Your task to perform on an android device: Go to Reddit.com Image 0: 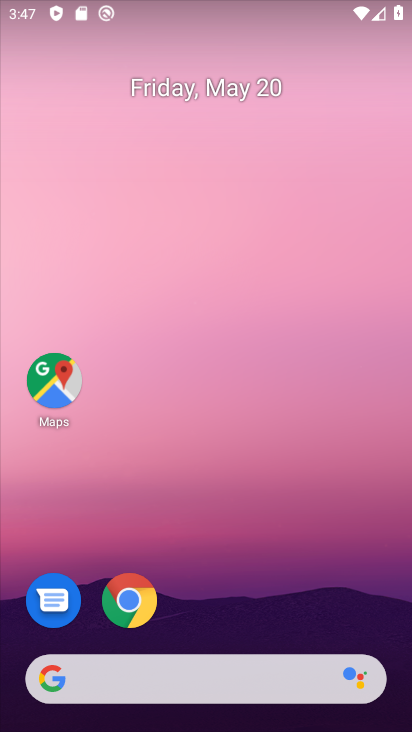
Step 0: click (136, 601)
Your task to perform on an android device: Go to Reddit.com Image 1: 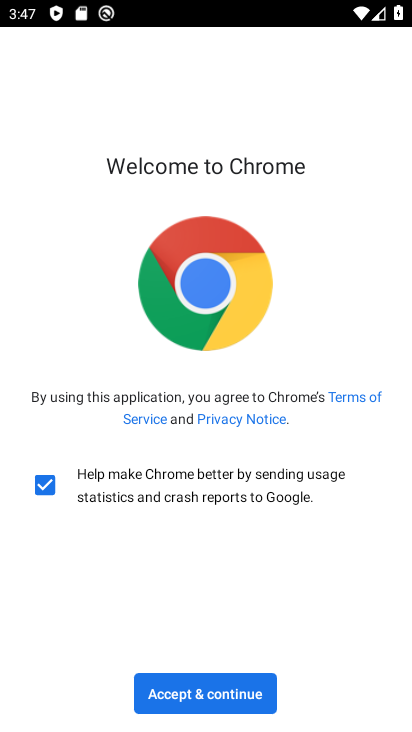
Step 1: click (184, 681)
Your task to perform on an android device: Go to Reddit.com Image 2: 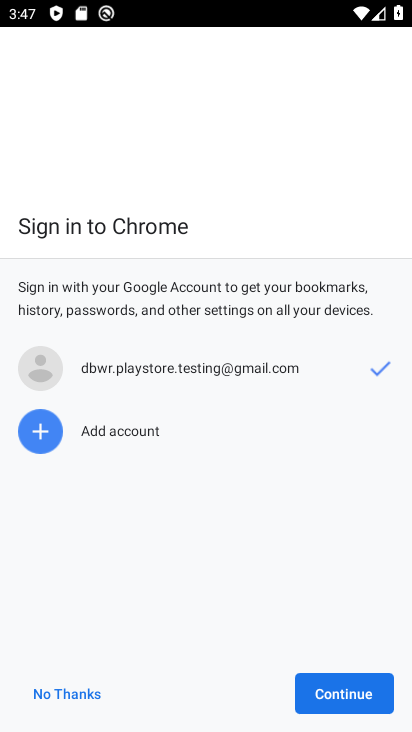
Step 2: click (348, 694)
Your task to perform on an android device: Go to Reddit.com Image 3: 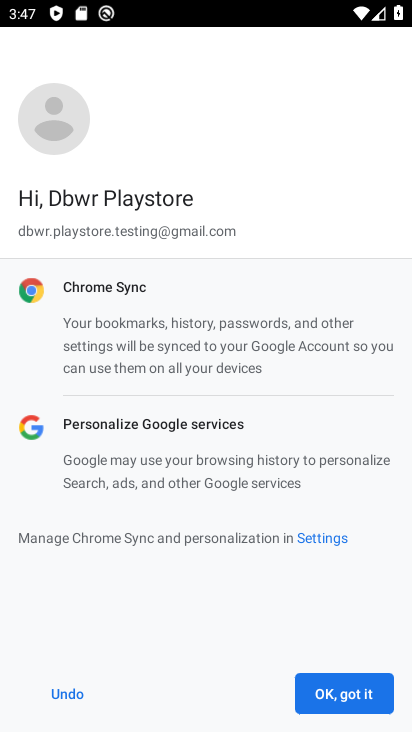
Step 3: click (348, 694)
Your task to perform on an android device: Go to Reddit.com Image 4: 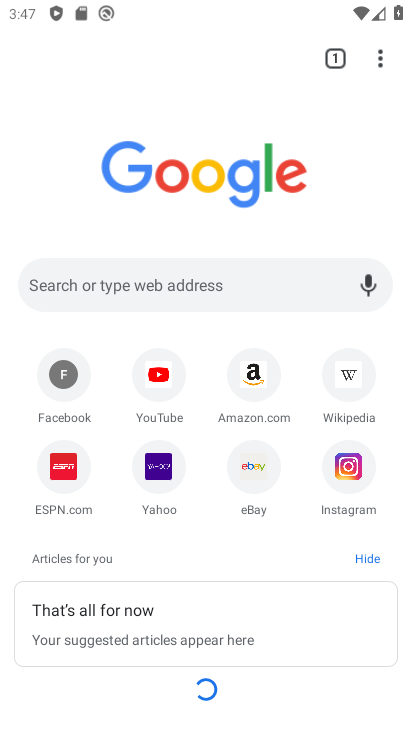
Step 4: click (336, 52)
Your task to perform on an android device: Go to Reddit.com Image 5: 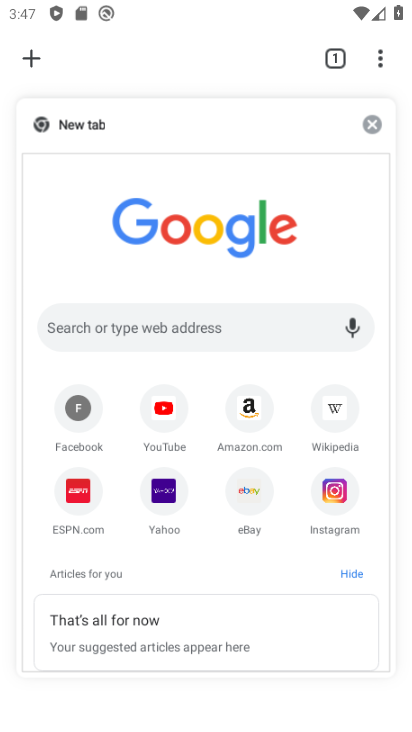
Step 5: click (158, 145)
Your task to perform on an android device: Go to Reddit.com Image 6: 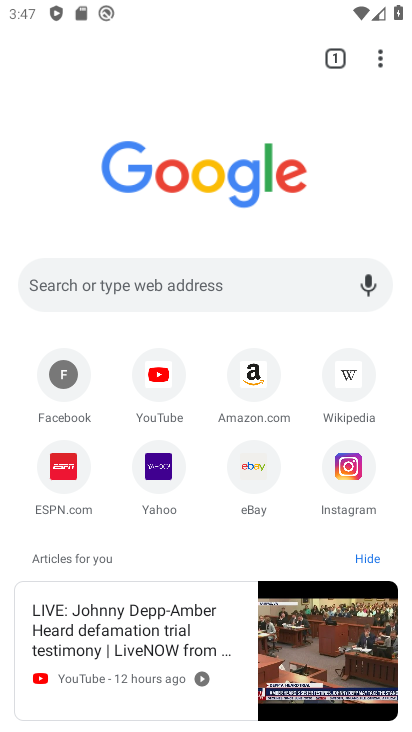
Step 6: click (133, 296)
Your task to perform on an android device: Go to Reddit.com Image 7: 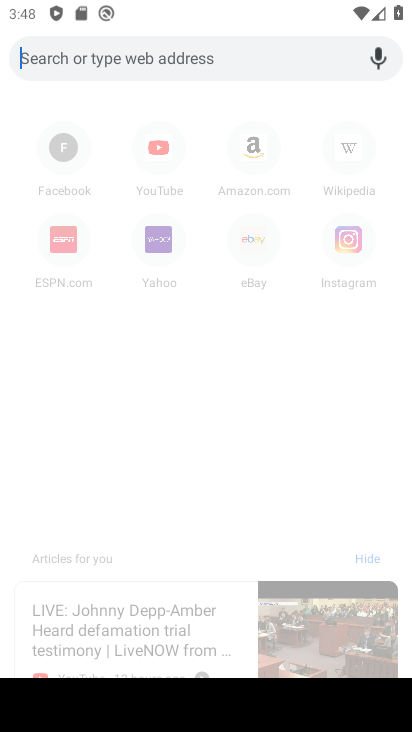
Step 7: type "reddit.com"
Your task to perform on an android device: Go to Reddit.com Image 8: 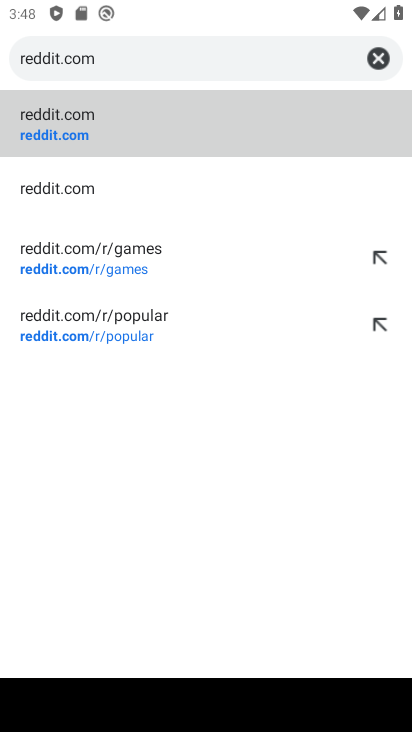
Step 8: click (83, 140)
Your task to perform on an android device: Go to Reddit.com Image 9: 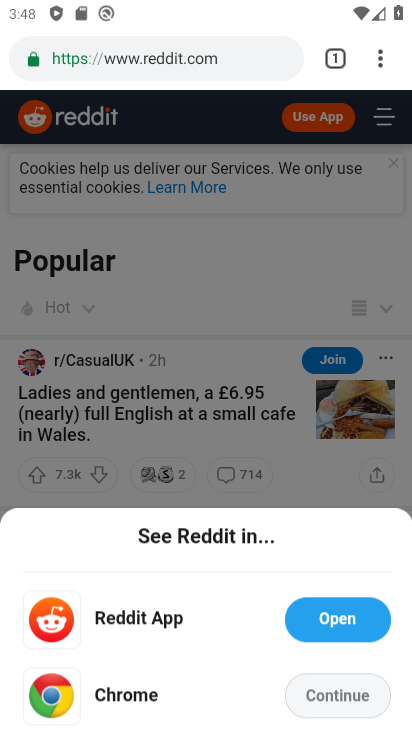
Step 9: task complete